Your task to perform on an android device: toggle location history Image 0: 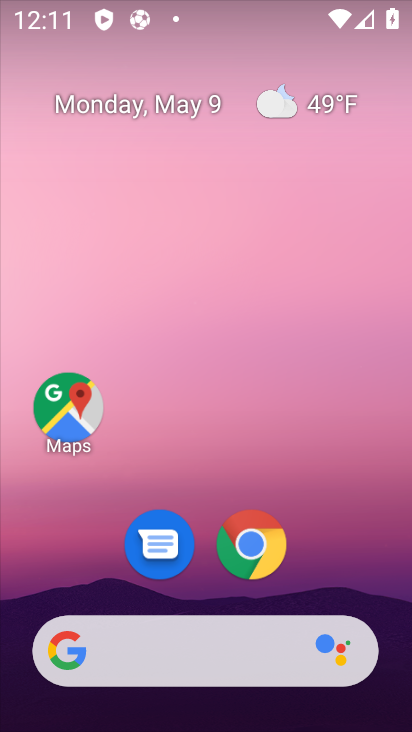
Step 0: drag from (305, 619) to (278, 16)
Your task to perform on an android device: toggle location history Image 1: 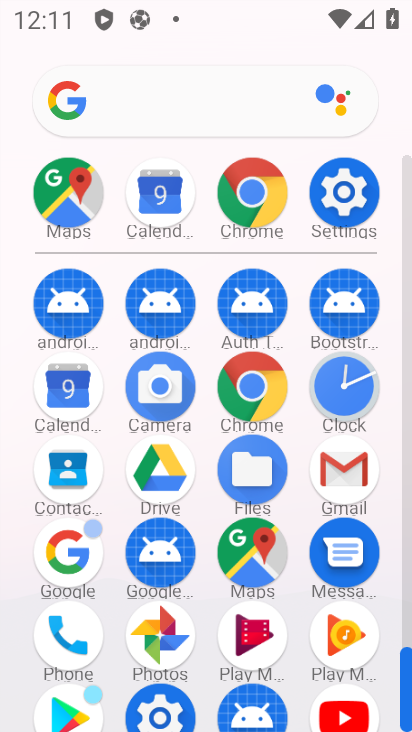
Step 1: click (337, 213)
Your task to perform on an android device: toggle location history Image 2: 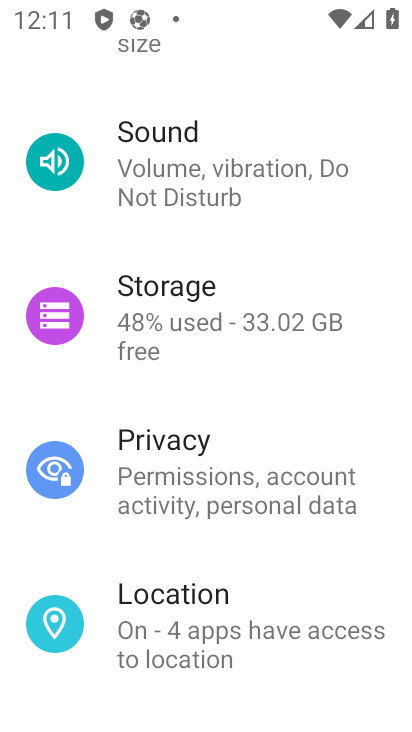
Step 2: click (264, 628)
Your task to perform on an android device: toggle location history Image 3: 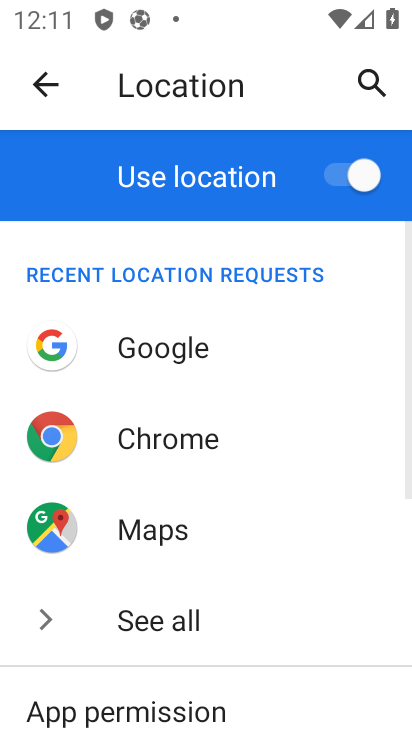
Step 3: drag from (241, 702) to (248, 49)
Your task to perform on an android device: toggle location history Image 4: 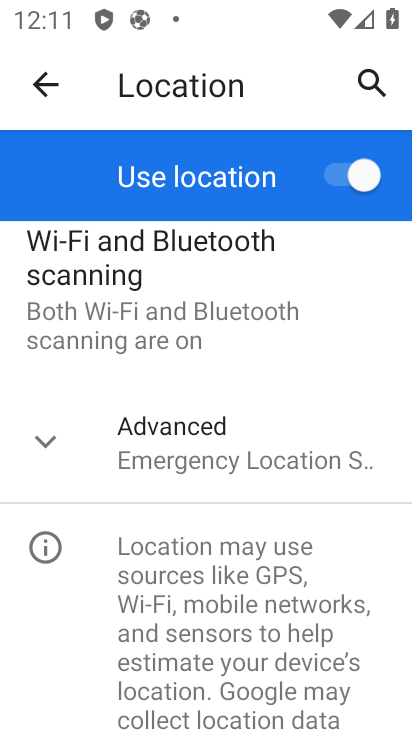
Step 4: click (232, 450)
Your task to perform on an android device: toggle location history Image 5: 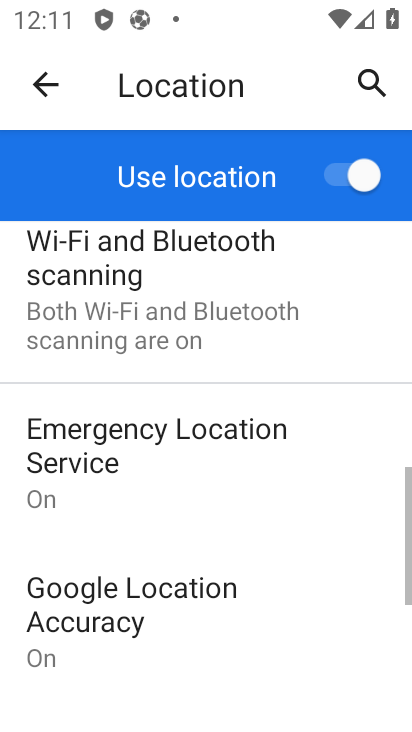
Step 5: drag from (326, 699) to (298, 228)
Your task to perform on an android device: toggle location history Image 6: 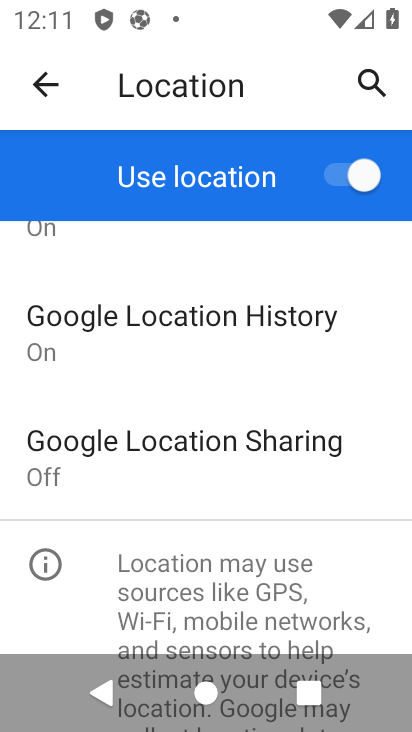
Step 6: click (275, 336)
Your task to perform on an android device: toggle location history Image 7: 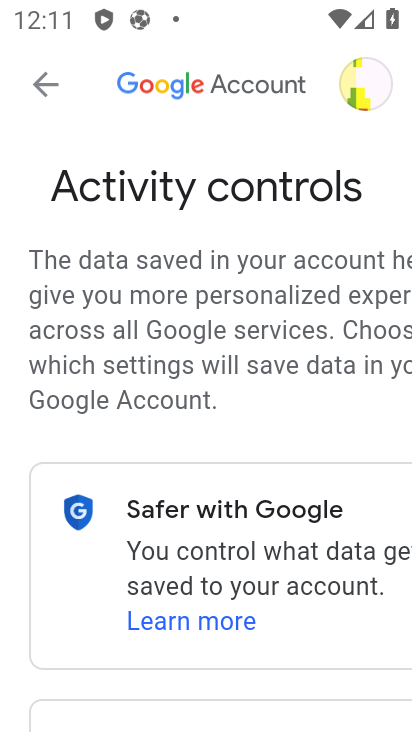
Step 7: drag from (270, 668) to (184, 23)
Your task to perform on an android device: toggle location history Image 8: 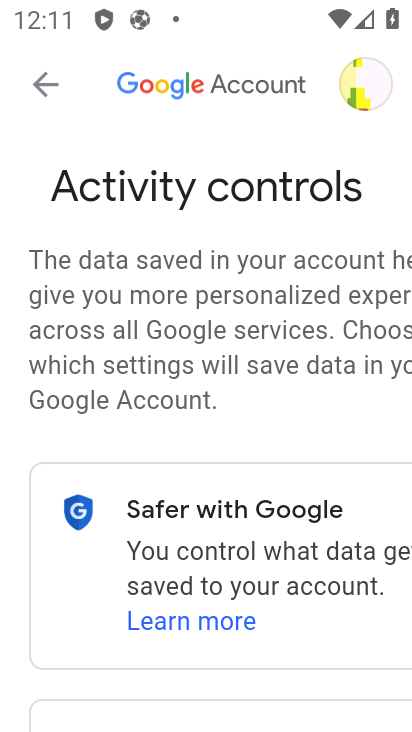
Step 8: drag from (335, 660) to (268, 158)
Your task to perform on an android device: toggle location history Image 9: 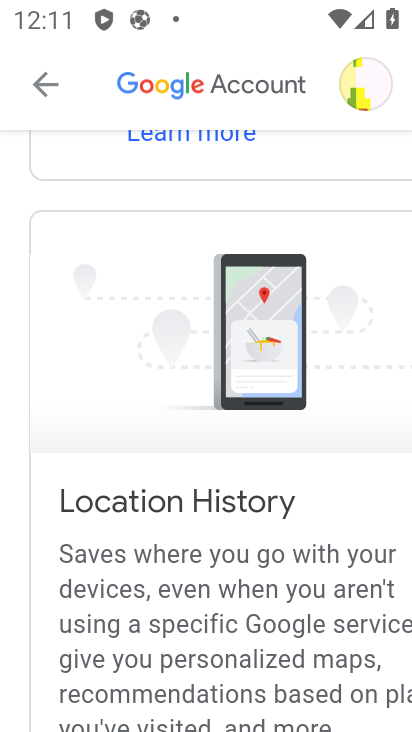
Step 9: drag from (329, 671) to (252, 262)
Your task to perform on an android device: toggle location history Image 10: 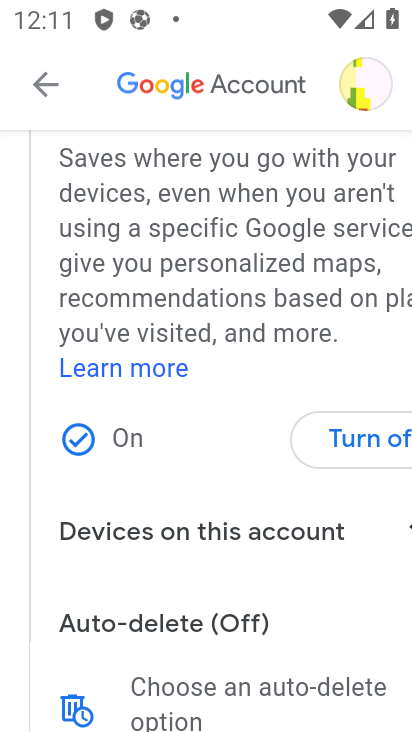
Step 10: click (351, 444)
Your task to perform on an android device: toggle location history Image 11: 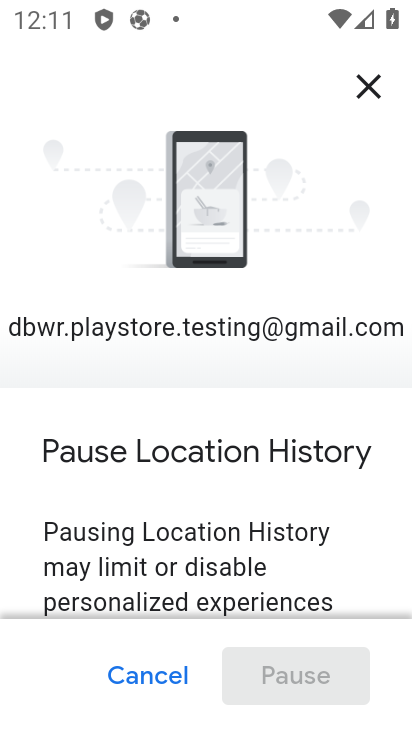
Step 11: drag from (335, 578) to (324, 62)
Your task to perform on an android device: toggle location history Image 12: 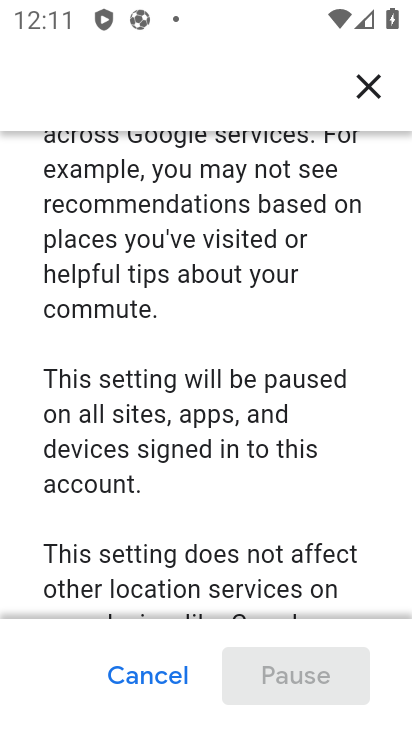
Step 12: drag from (321, 539) to (326, 85)
Your task to perform on an android device: toggle location history Image 13: 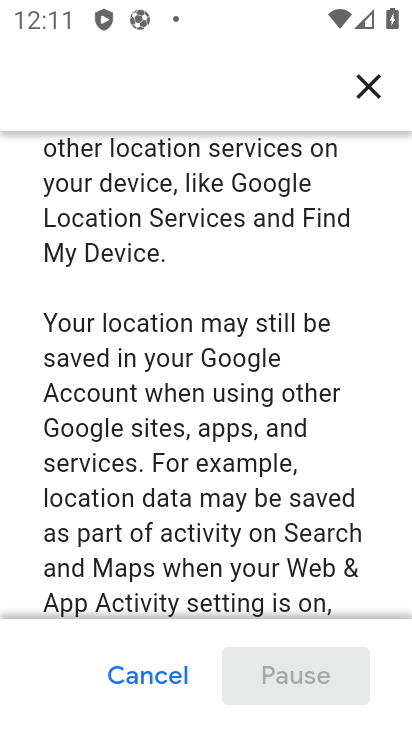
Step 13: drag from (344, 576) to (341, 112)
Your task to perform on an android device: toggle location history Image 14: 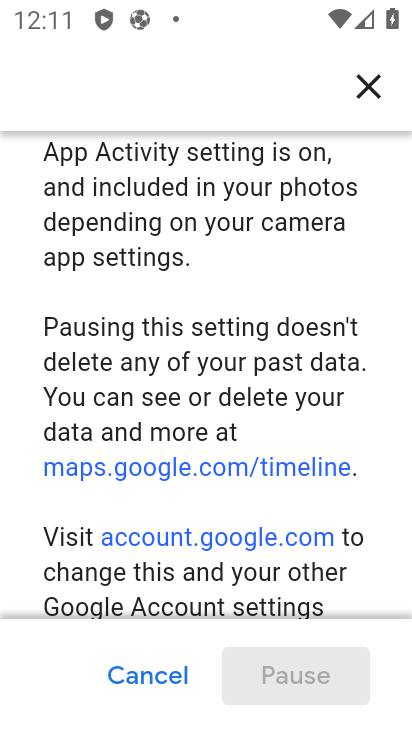
Step 14: drag from (316, 588) to (322, 184)
Your task to perform on an android device: toggle location history Image 15: 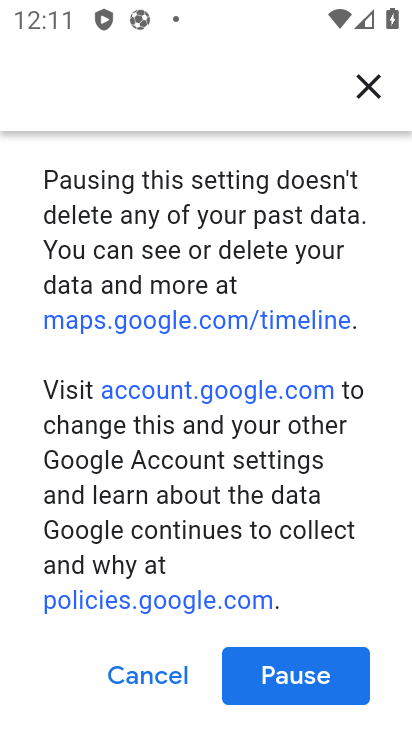
Step 15: click (323, 692)
Your task to perform on an android device: toggle location history Image 16: 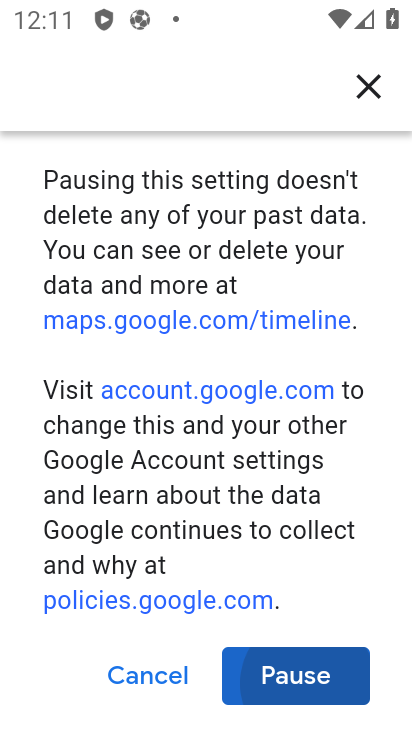
Step 16: click (323, 692)
Your task to perform on an android device: toggle location history Image 17: 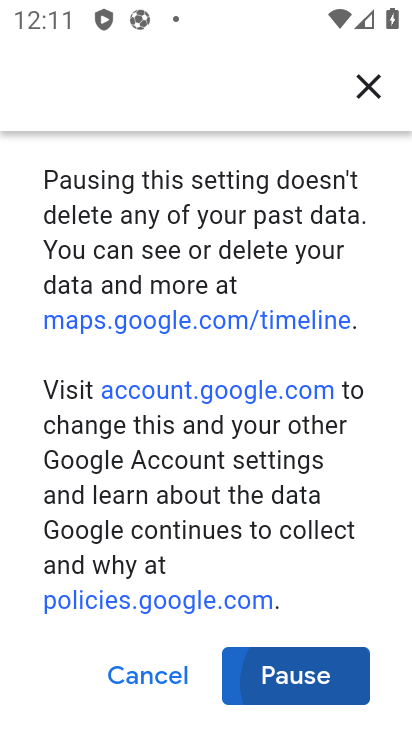
Step 17: click (323, 692)
Your task to perform on an android device: toggle location history Image 18: 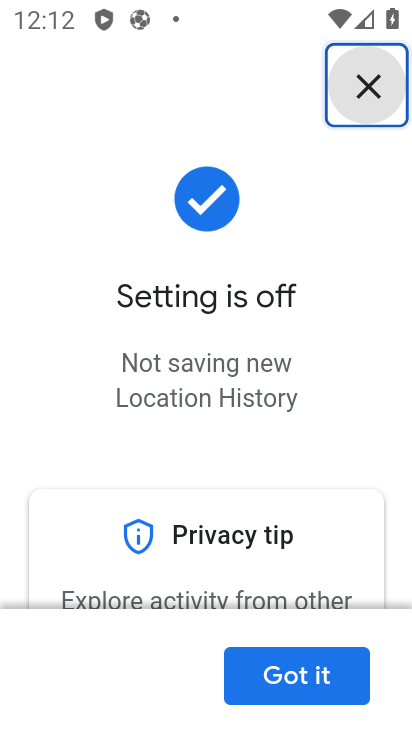
Step 18: task complete